Your task to perform on an android device: turn on the 12-hour format for clock Image 0: 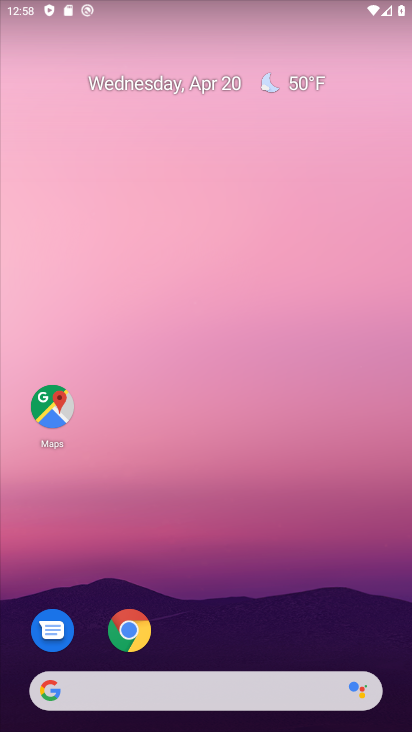
Step 0: drag from (209, 512) to (251, 103)
Your task to perform on an android device: turn on the 12-hour format for clock Image 1: 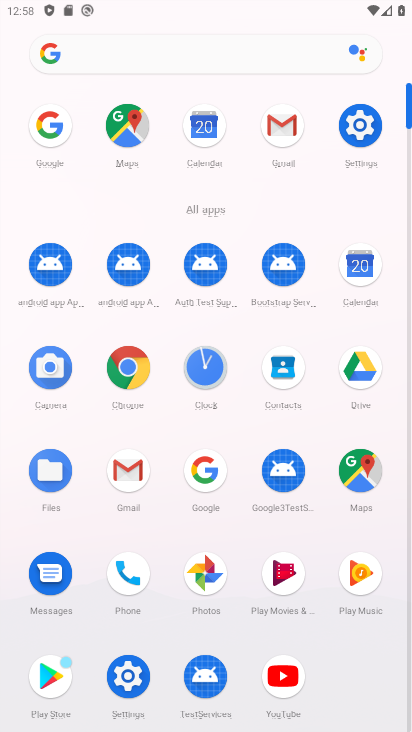
Step 1: click (202, 371)
Your task to perform on an android device: turn on the 12-hour format for clock Image 2: 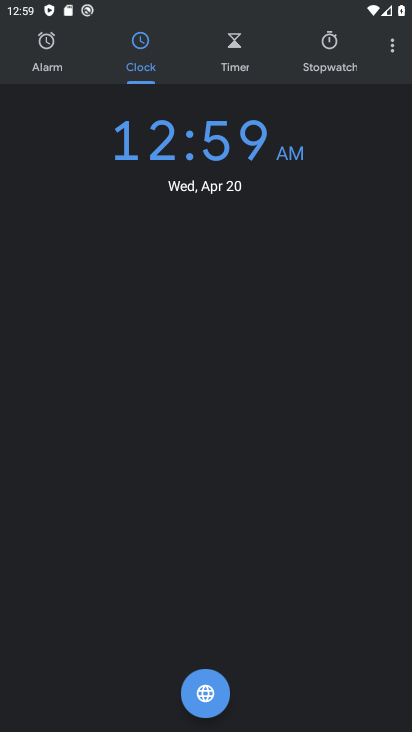
Step 2: click (387, 43)
Your task to perform on an android device: turn on the 12-hour format for clock Image 3: 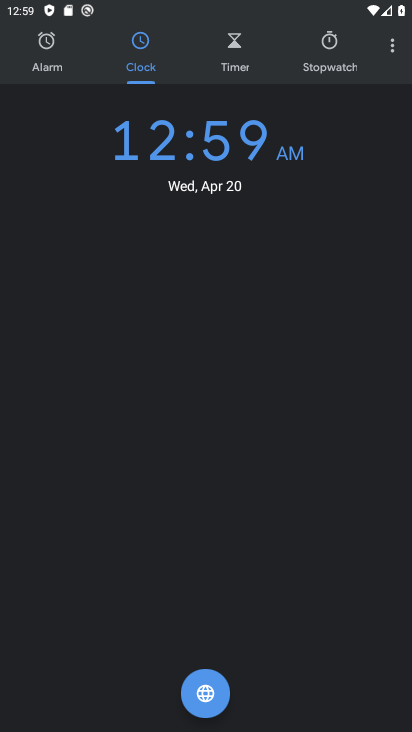
Step 3: click (385, 47)
Your task to perform on an android device: turn on the 12-hour format for clock Image 4: 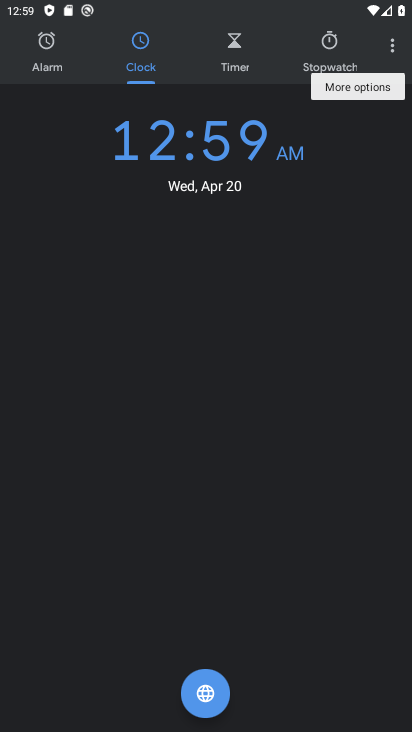
Step 4: click (387, 41)
Your task to perform on an android device: turn on the 12-hour format for clock Image 5: 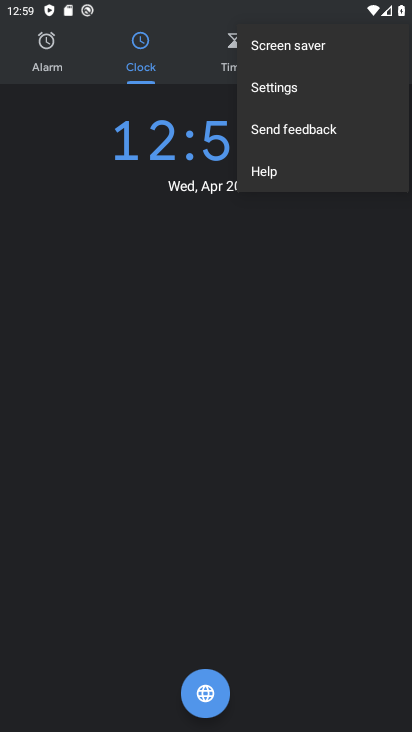
Step 5: click (295, 82)
Your task to perform on an android device: turn on the 12-hour format for clock Image 6: 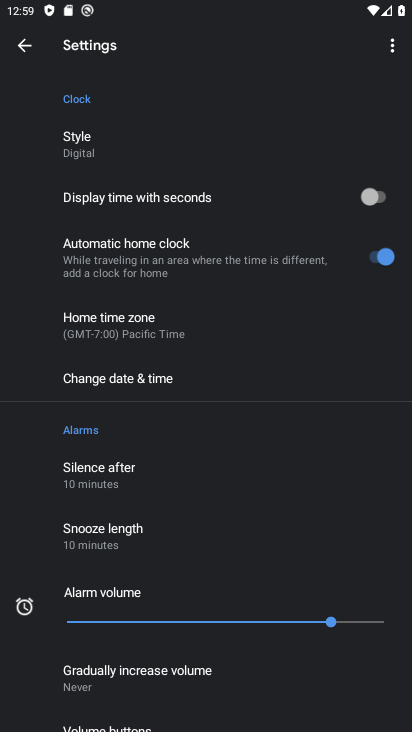
Step 6: click (123, 380)
Your task to perform on an android device: turn on the 12-hour format for clock Image 7: 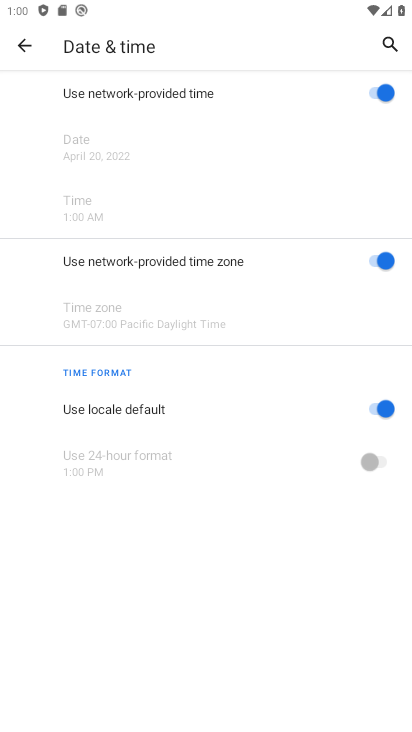
Step 7: task complete